Your task to perform on an android device: move an email to a new category in the gmail app Image 0: 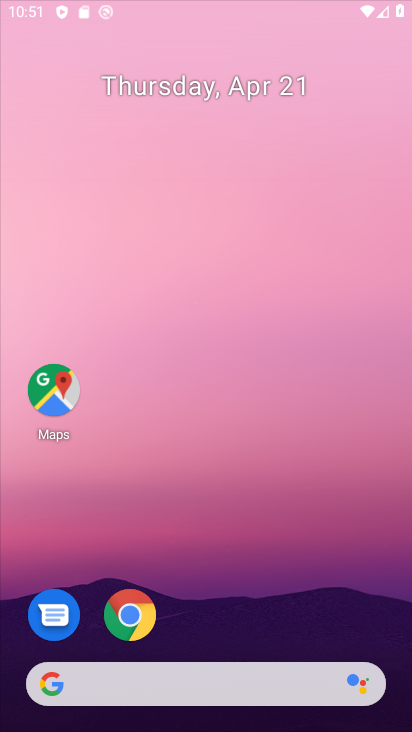
Step 0: click (246, 108)
Your task to perform on an android device: move an email to a new category in the gmail app Image 1: 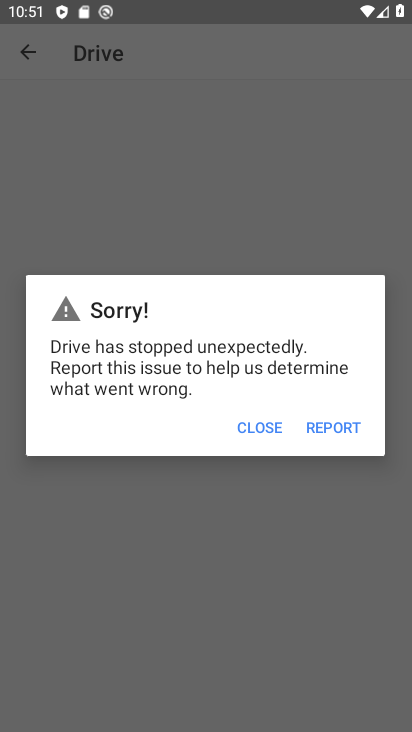
Step 1: click (270, 424)
Your task to perform on an android device: move an email to a new category in the gmail app Image 2: 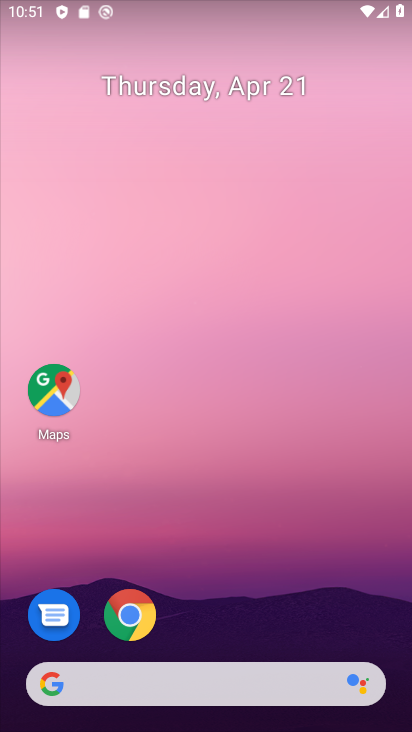
Step 2: drag from (230, 639) to (171, 132)
Your task to perform on an android device: move an email to a new category in the gmail app Image 3: 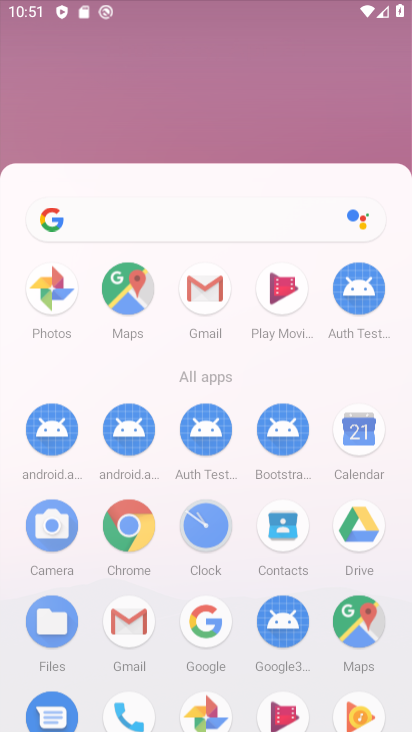
Step 3: drag from (246, 435) to (233, 300)
Your task to perform on an android device: move an email to a new category in the gmail app Image 4: 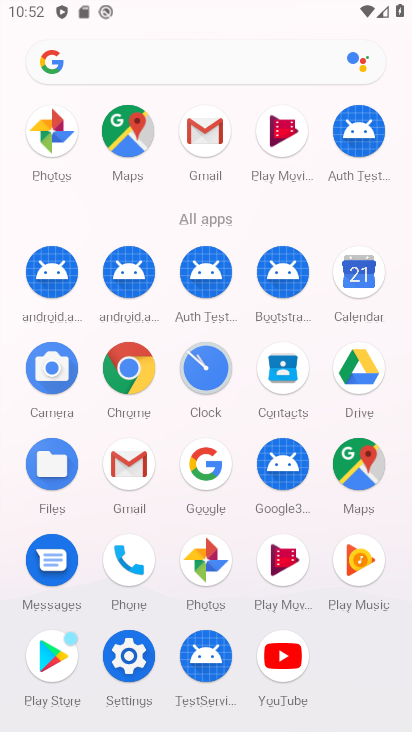
Step 4: click (135, 471)
Your task to perform on an android device: move an email to a new category in the gmail app Image 5: 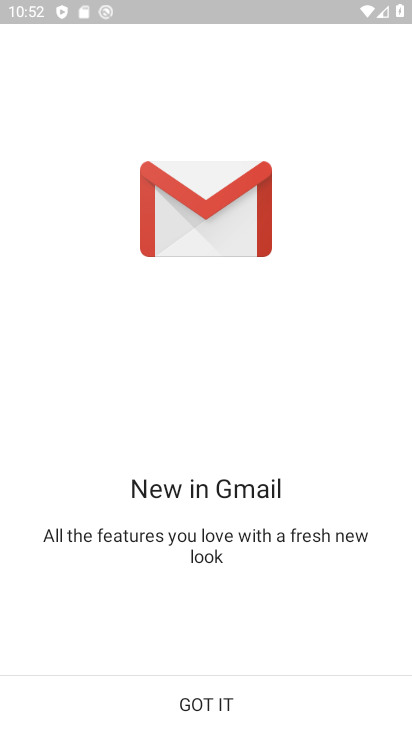
Step 5: click (223, 717)
Your task to perform on an android device: move an email to a new category in the gmail app Image 6: 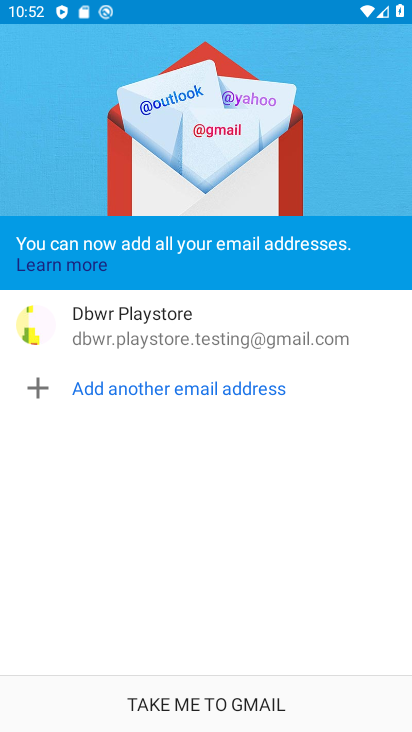
Step 6: click (217, 709)
Your task to perform on an android device: move an email to a new category in the gmail app Image 7: 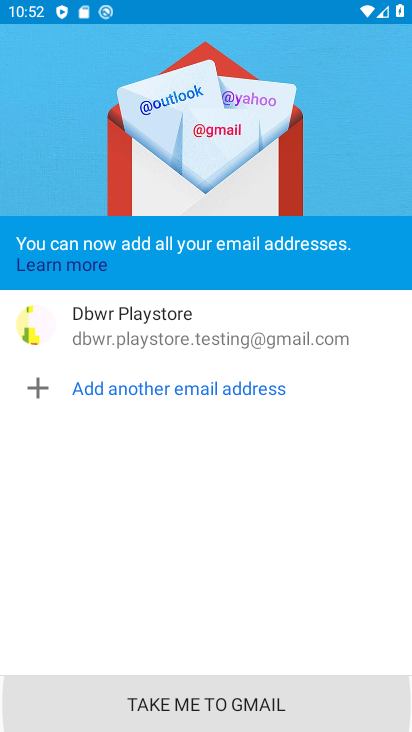
Step 7: click (217, 709)
Your task to perform on an android device: move an email to a new category in the gmail app Image 8: 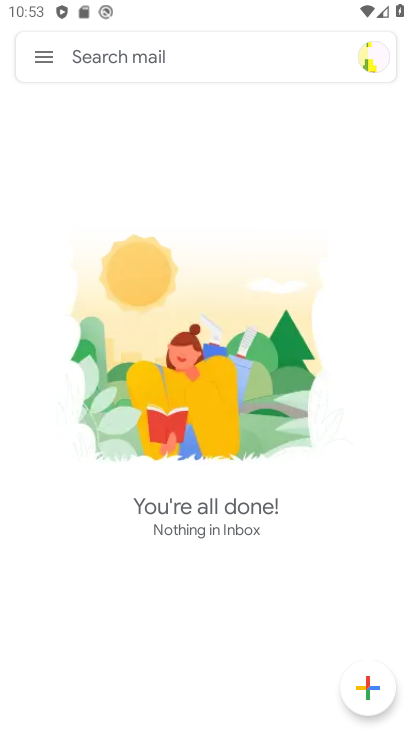
Step 8: click (46, 59)
Your task to perform on an android device: move an email to a new category in the gmail app Image 9: 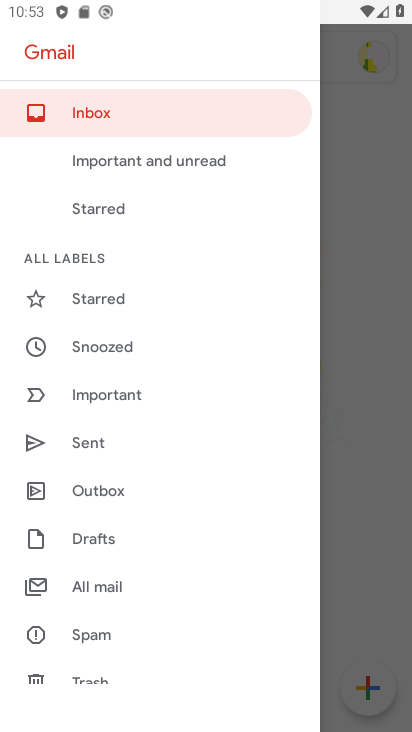
Step 9: drag from (157, 599) to (153, 245)
Your task to perform on an android device: move an email to a new category in the gmail app Image 10: 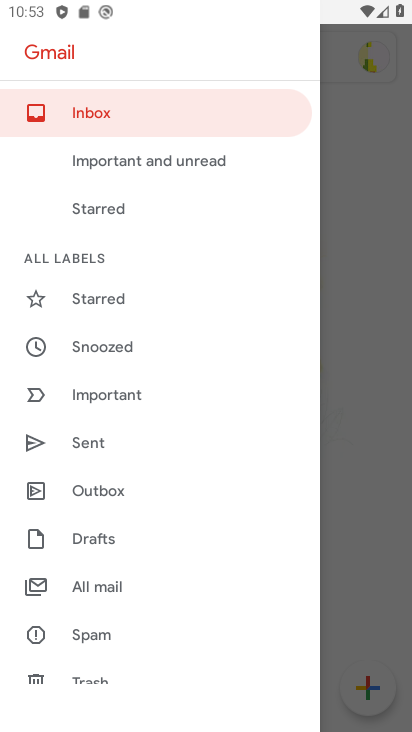
Step 10: click (98, 121)
Your task to perform on an android device: move an email to a new category in the gmail app Image 11: 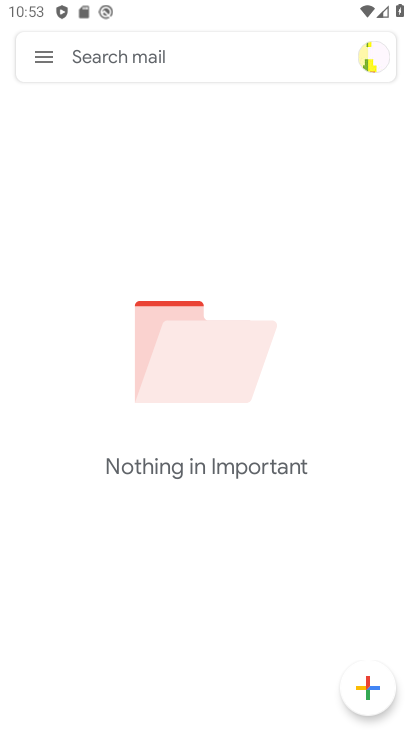
Step 11: click (49, 61)
Your task to perform on an android device: move an email to a new category in the gmail app Image 12: 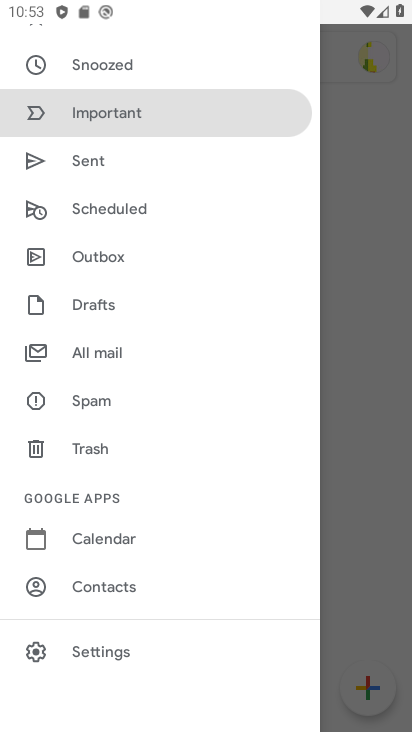
Step 12: click (80, 349)
Your task to perform on an android device: move an email to a new category in the gmail app Image 13: 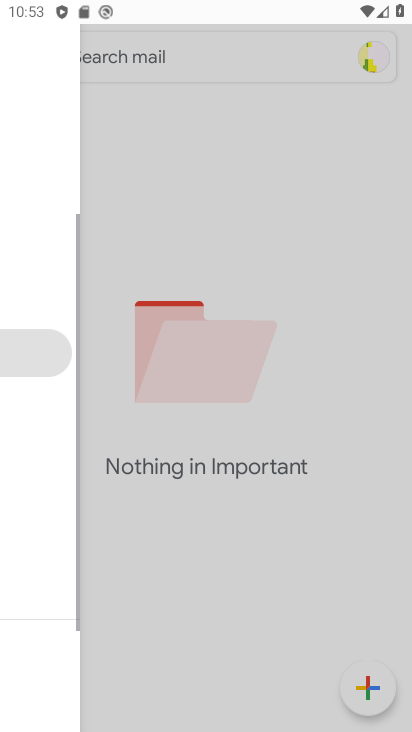
Step 13: click (80, 348)
Your task to perform on an android device: move an email to a new category in the gmail app Image 14: 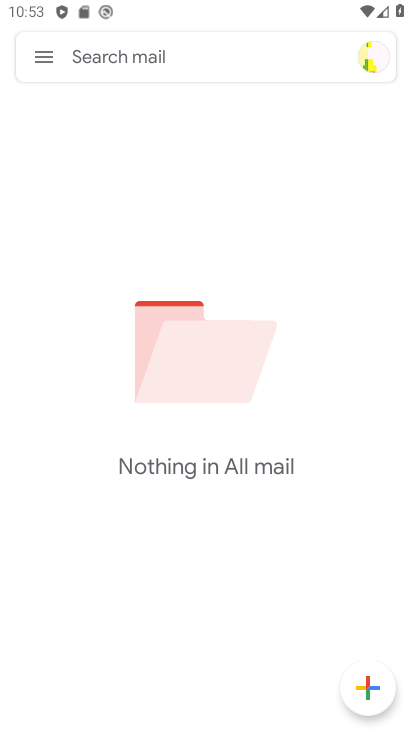
Step 14: click (79, 348)
Your task to perform on an android device: move an email to a new category in the gmail app Image 15: 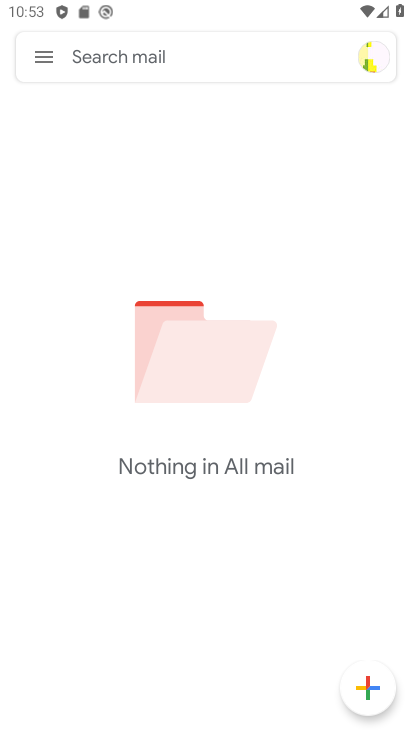
Step 15: task complete